Your task to perform on an android device: Clear the shopping cart on target. Image 0: 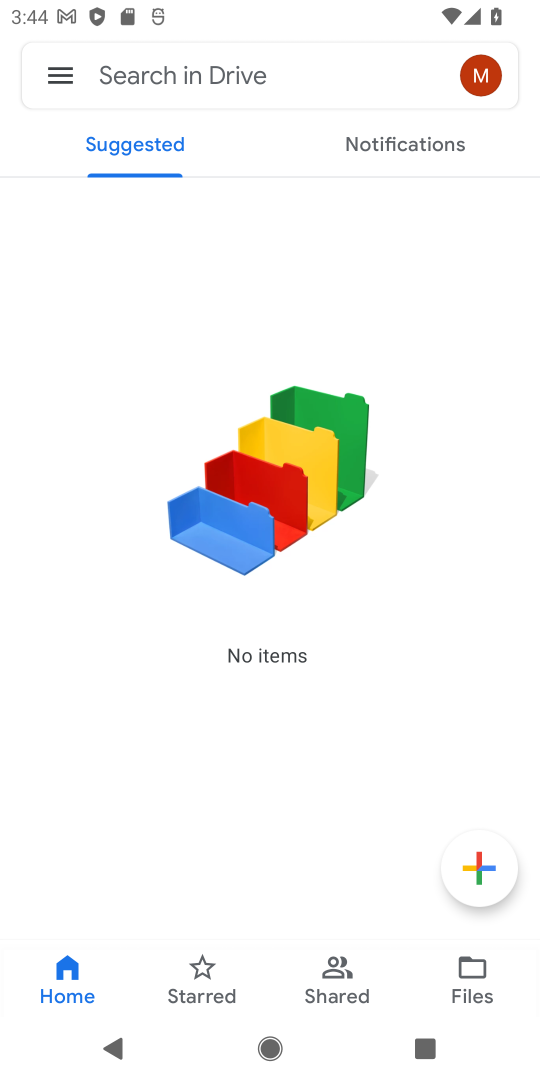
Step 0: press home button
Your task to perform on an android device: Clear the shopping cart on target. Image 1: 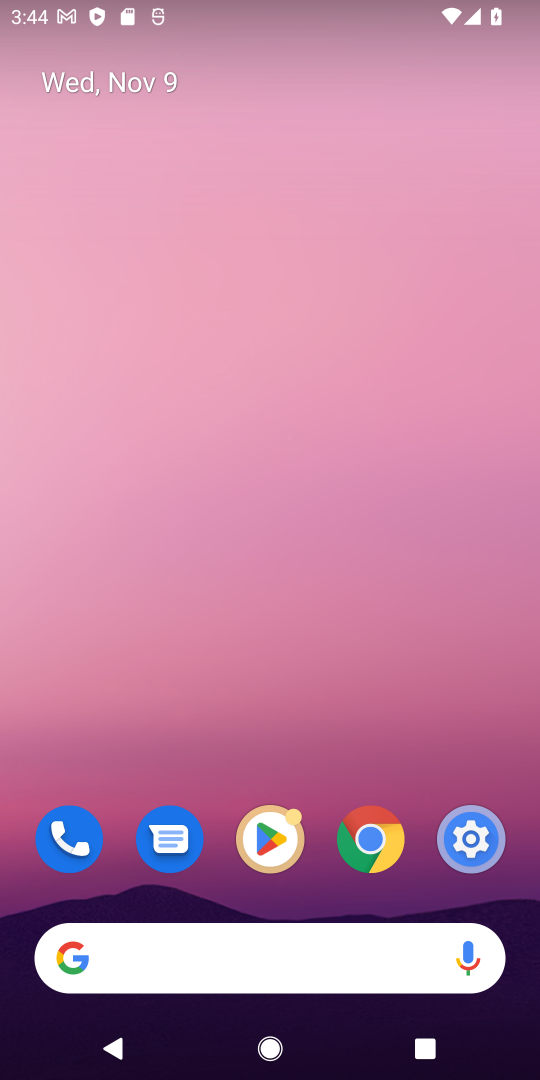
Step 1: click (256, 965)
Your task to perform on an android device: Clear the shopping cart on target. Image 2: 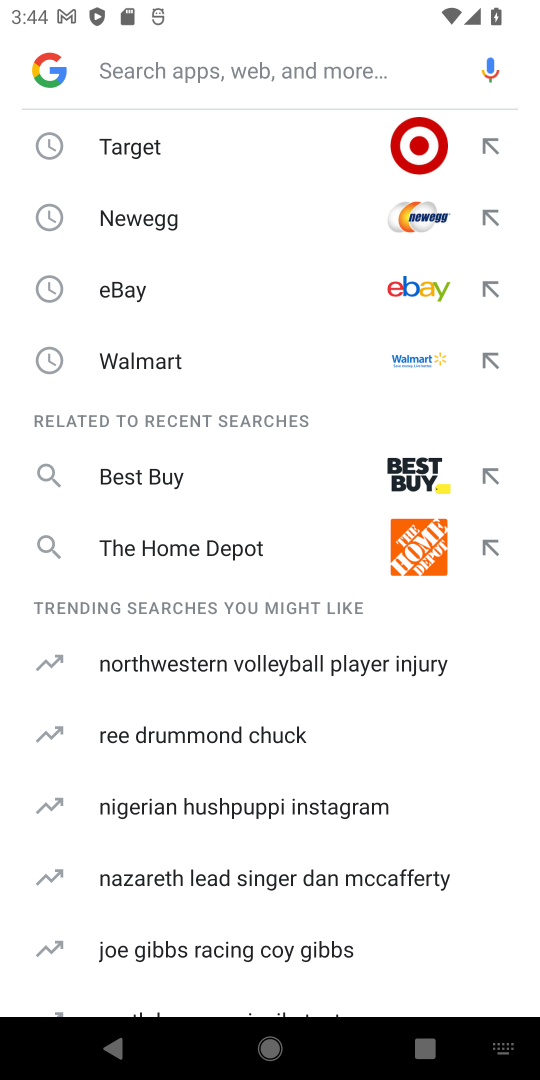
Step 2: click (115, 153)
Your task to perform on an android device: Clear the shopping cart on target. Image 3: 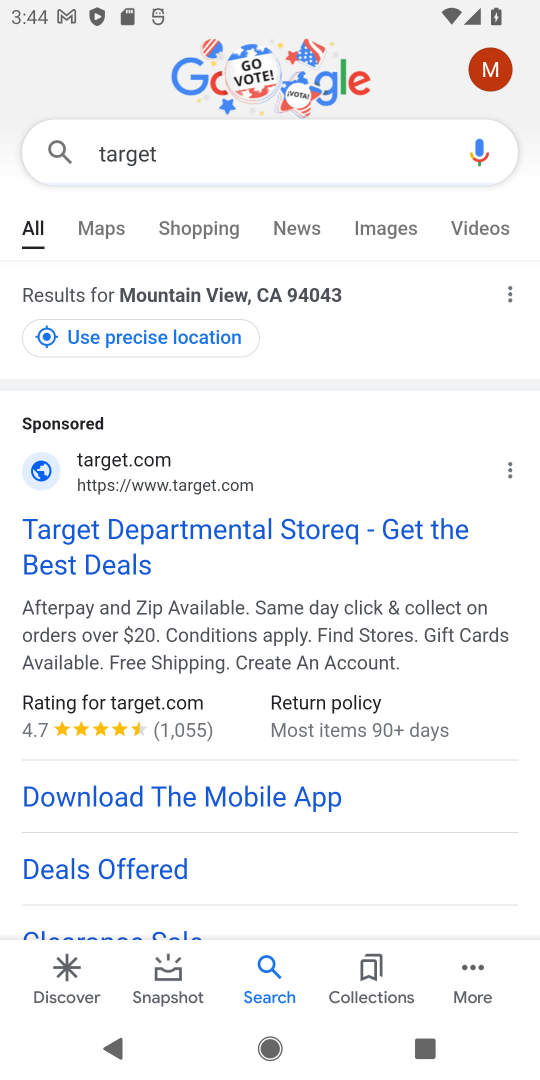
Step 3: click (112, 588)
Your task to perform on an android device: Clear the shopping cart on target. Image 4: 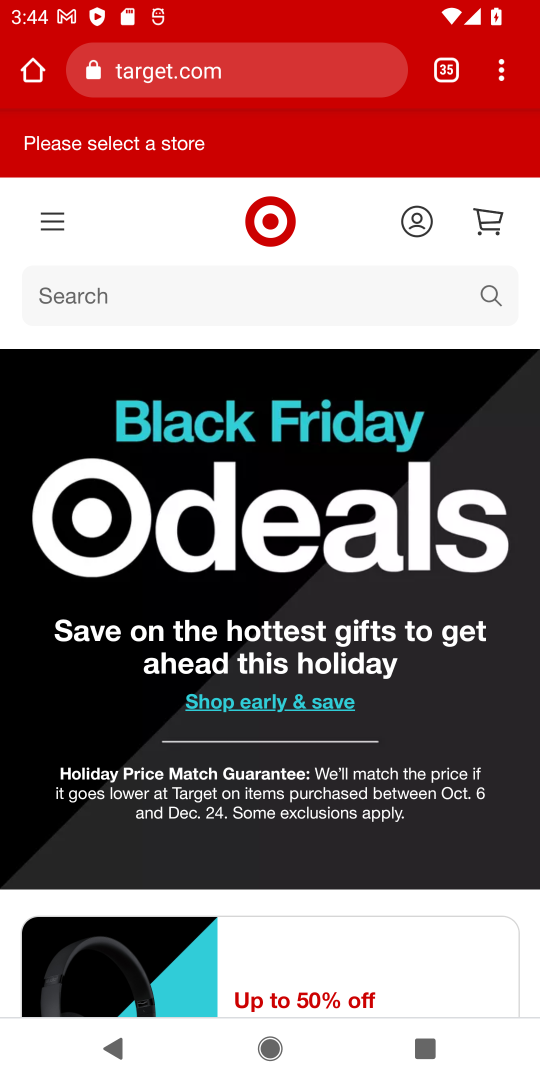
Step 4: task complete